Your task to perform on an android device: toggle priority inbox in the gmail app Image 0: 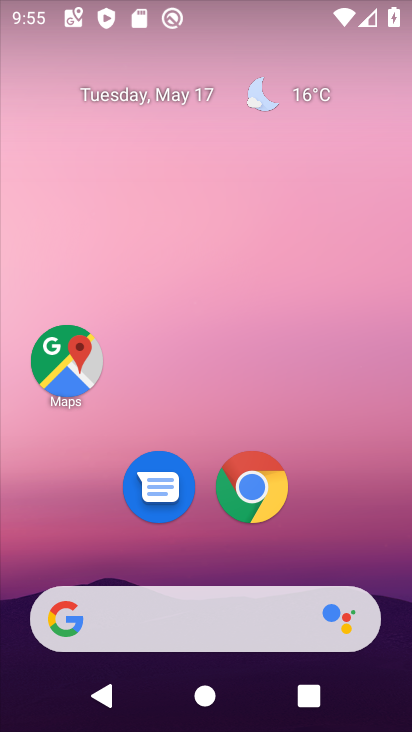
Step 0: drag from (207, 538) to (257, 118)
Your task to perform on an android device: toggle priority inbox in the gmail app Image 1: 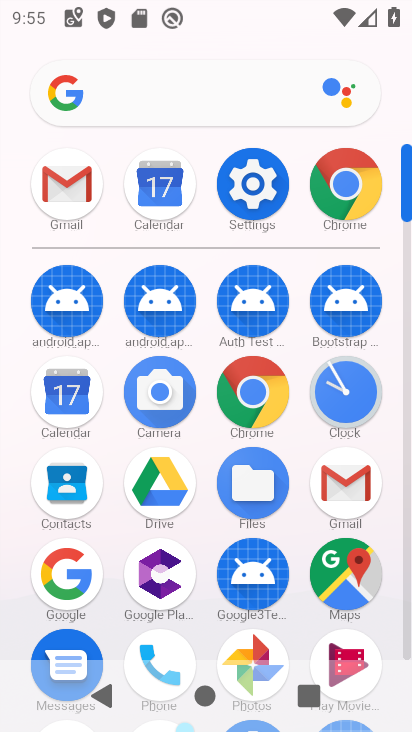
Step 1: click (343, 493)
Your task to perform on an android device: toggle priority inbox in the gmail app Image 2: 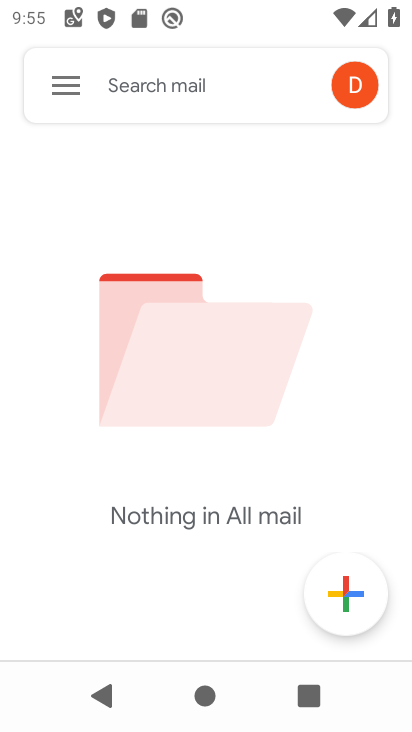
Step 2: click (76, 83)
Your task to perform on an android device: toggle priority inbox in the gmail app Image 3: 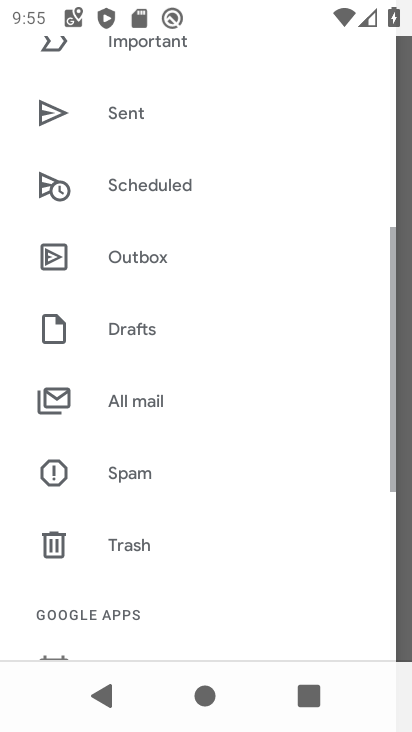
Step 3: drag from (158, 567) to (231, 214)
Your task to perform on an android device: toggle priority inbox in the gmail app Image 4: 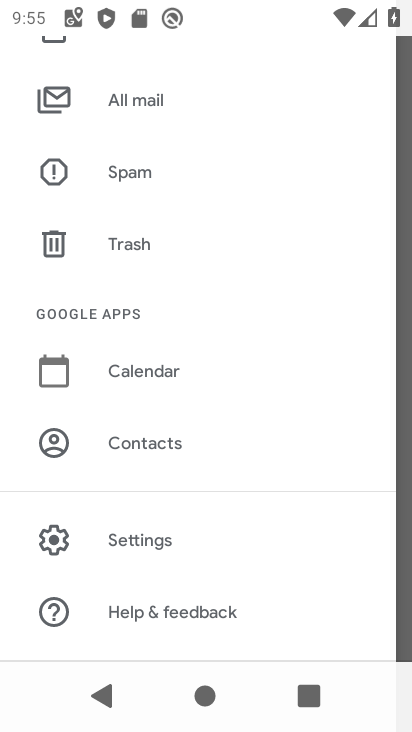
Step 4: click (156, 540)
Your task to perform on an android device: toggle priority inbox in the gmail app Image 5: 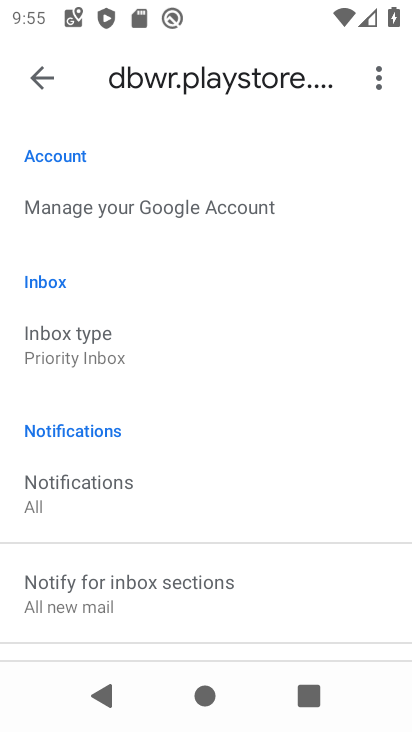
Step 5: click (89, 343)
Your task to perform on an android device: toggle priority inbox in the gmail app Image 6: 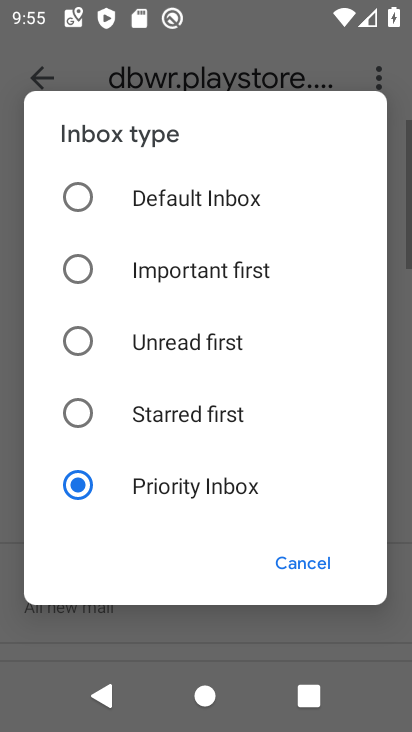
Step 6: click (116, 210)
Your task to perform on an android device: toggle priority inbox in the gmail app Image 7: 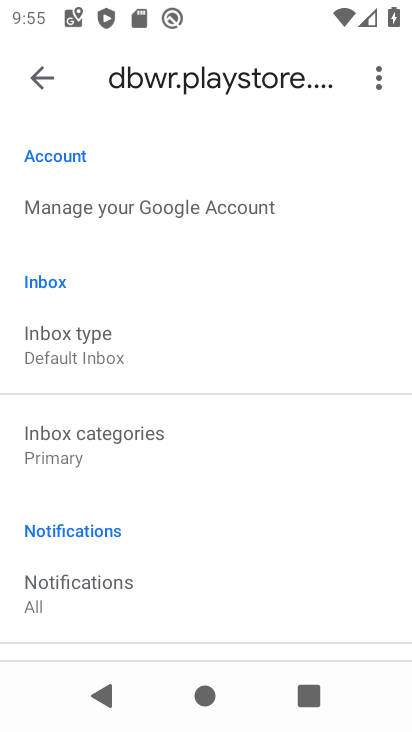
Step 7: task complete